Your task to perform on an android device: Open CNN.com Image 0: 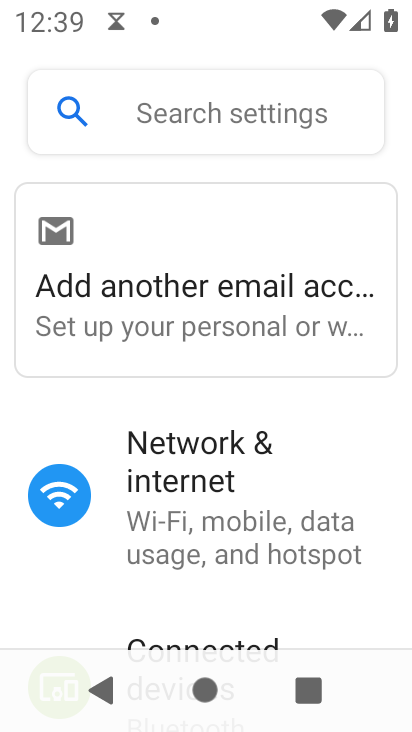
Step 0: press back button
Your task to perform on an android device: Open CNN.com Image 1: 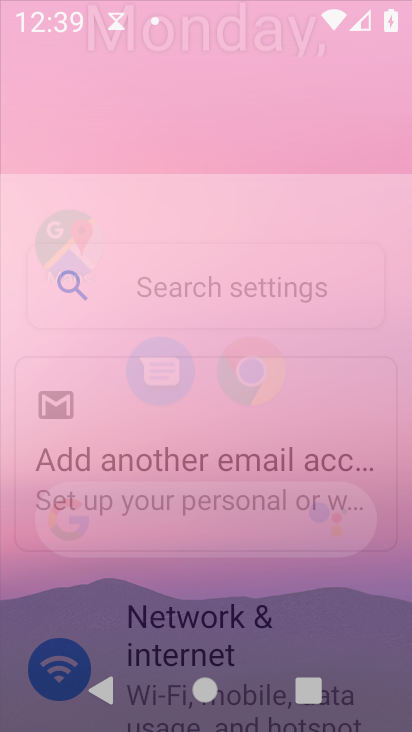
Step 1: press back button
Your task to perform on an android device: Open CNN.com Image 2: 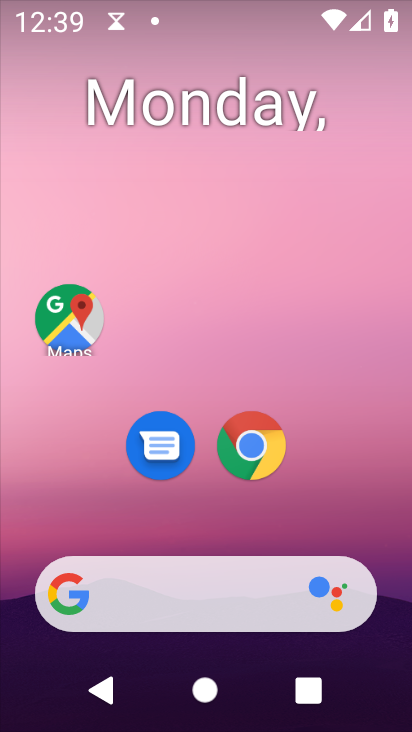
Step 2: drag from (325, 513) to (287, 114)
Your task to perform on an android device: Open CNN.com Image 3: 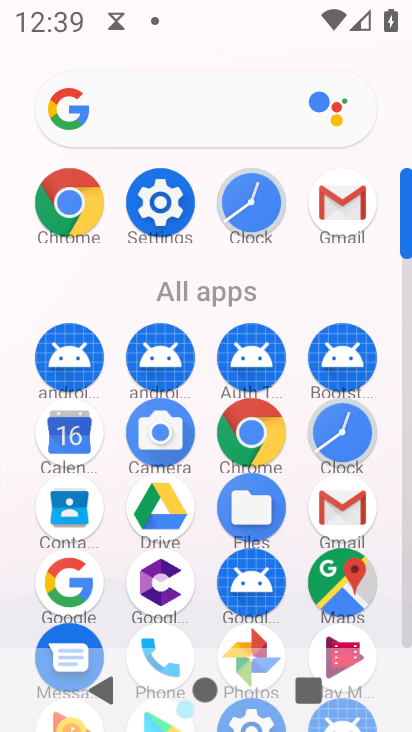
Step 3: click (252, 426)
Your task to perform on an android device: Open CNN.com Image 4: 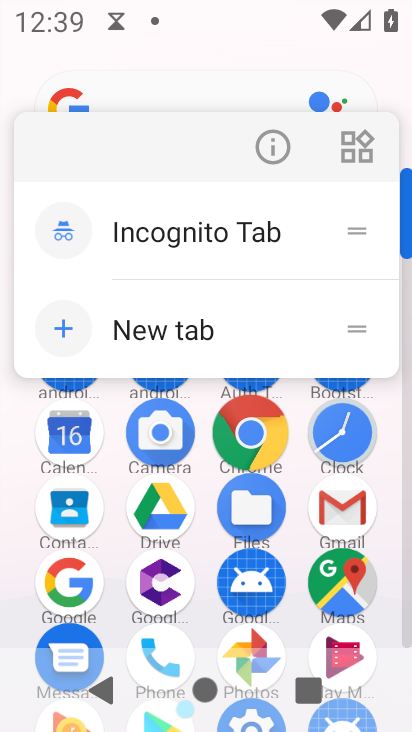
Step 4: click (245, 426)
Your task to perform on an android device: Open CNN.com Image 5: 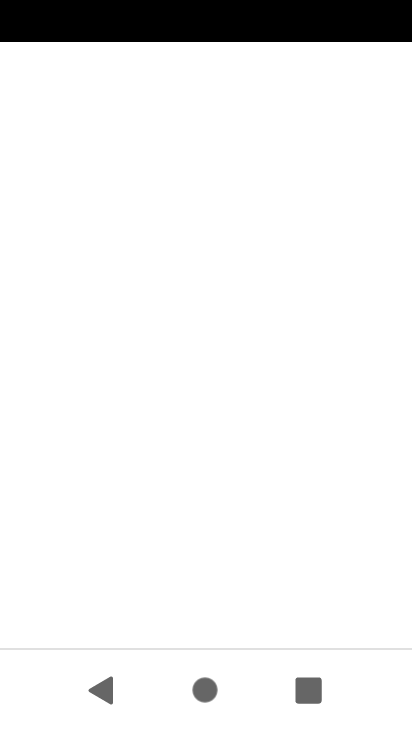
Step 5: click (243, 421)
Your task to perform on an android device: Open CNN.com Image 6: 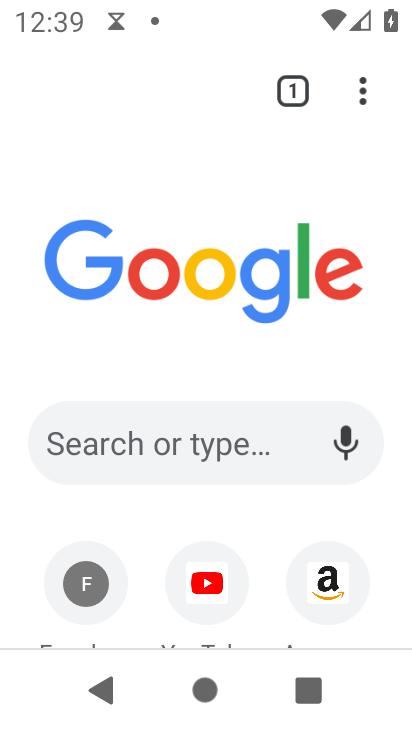
Step 6: click (95, 454)
Your task to perform on an android device: Open CNN.com Image 7: 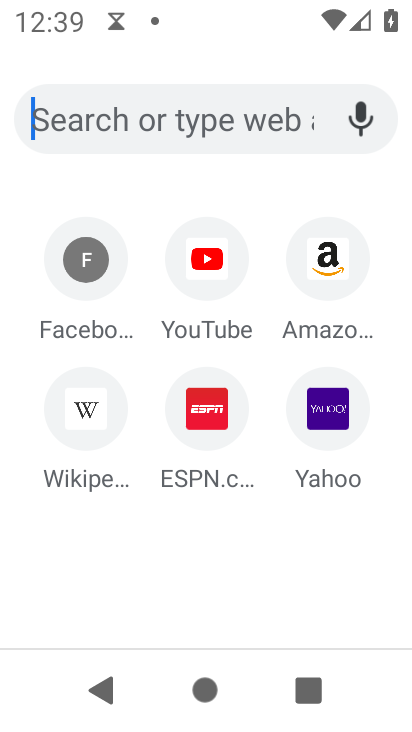
Step 7: click (95, 454)
Your task to perform on an android device: Open CNN.com Image 8: 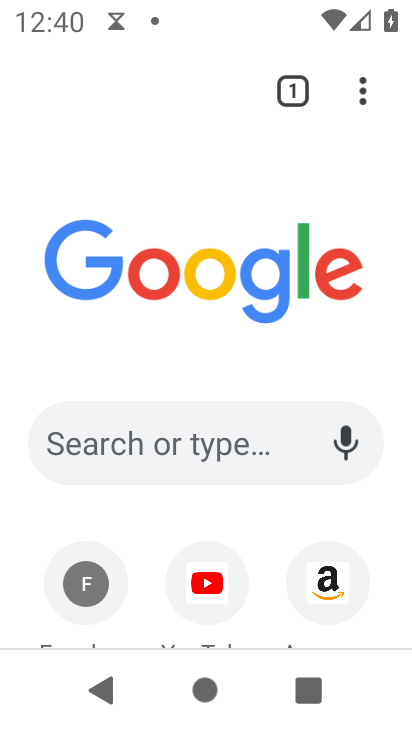
Step 8: click (98, 437)
Your task to perform on an android device: Open CNN.com Image 9: 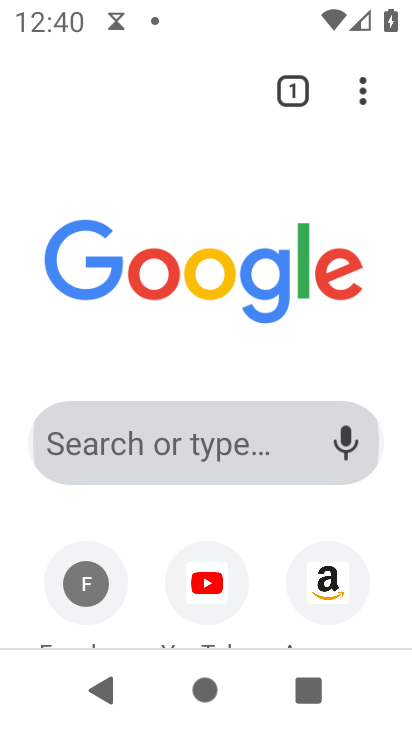
Step 9: click (98, 437)
Your task to perform on an android device: Open CNN.com Image 10: 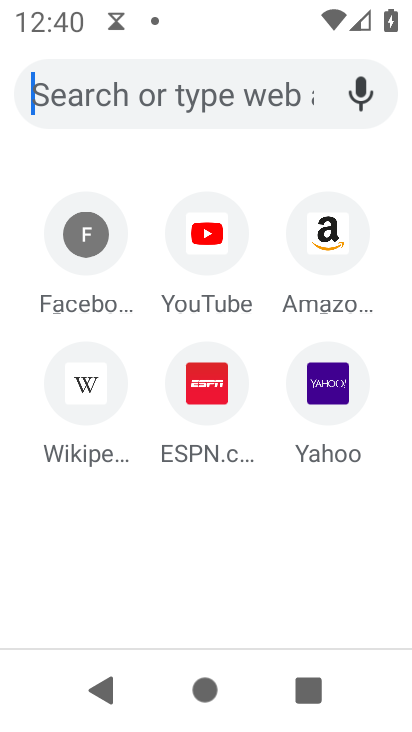
Step 10: click (94, 440)
Your task to perform on an android device: Open CNN.com Image 11: 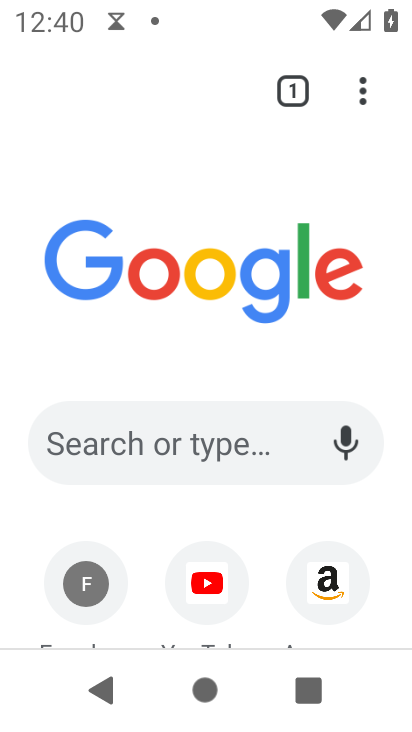
Step 11: type "cnn.com"
Your task to perform on an android device: Open CNN.com Image 12: 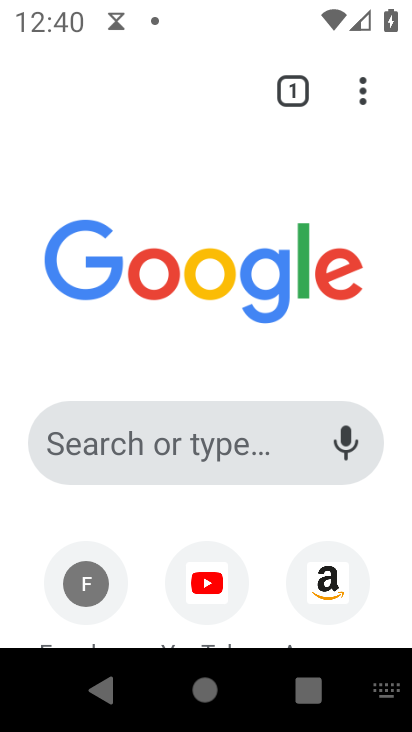
Step 12: click (123, 455)
Your task to perform on an android device: Open CNN.com Image 13: 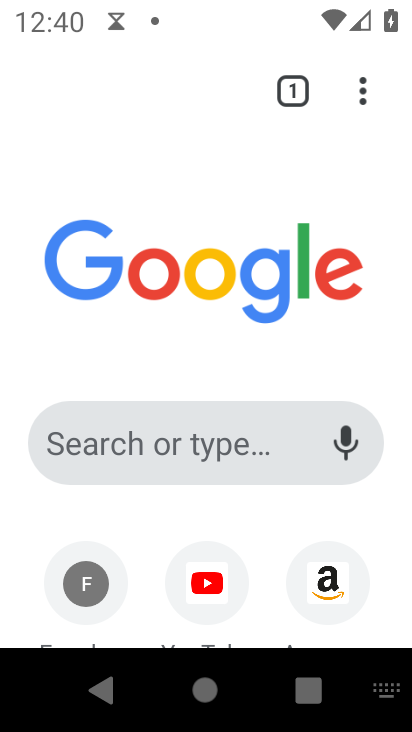
Step 13: click (123, 455)
Your task to perform on an android device: Open CNN.com Image 14: 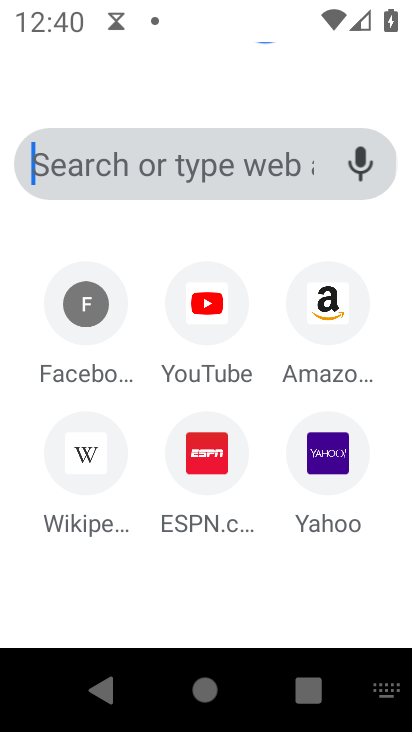
Step 14: click (123, 455)
Your task to perform on an android device: Open CNN.com Image 15: 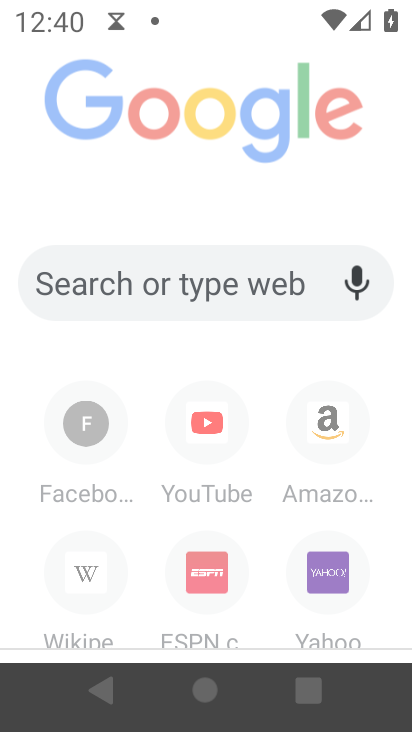
Step 15: click (123, 455)
Your task to perform on an android device: Open CNN.com Image 16: 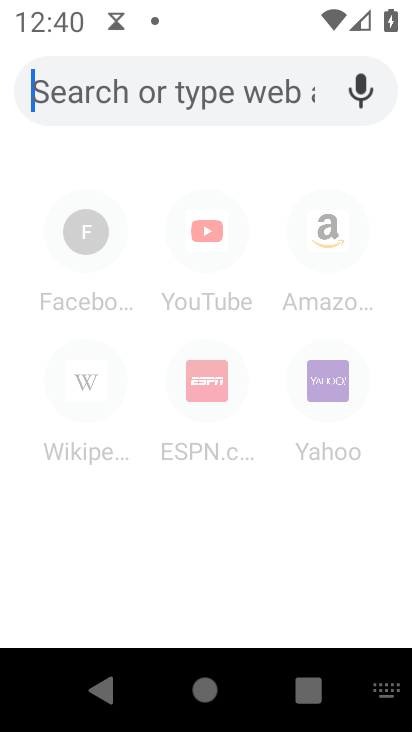
Step 16: type "CNN.com"
Your task to perform on an android device: Open CNN.com Image 17: 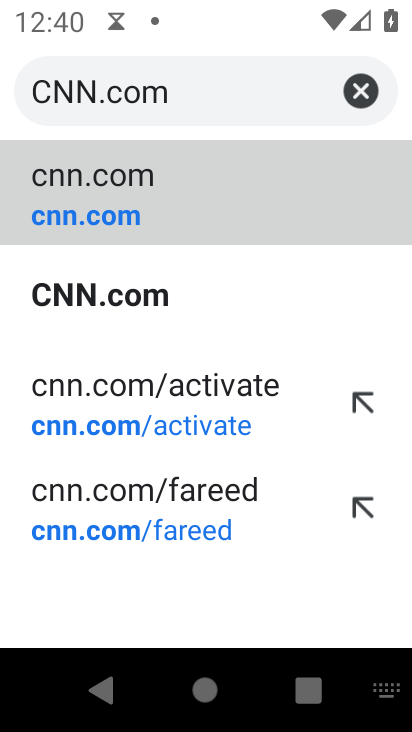
Step 17: click (101, 413)
Your task to perform on an android device: Open CNN.com Image 18: 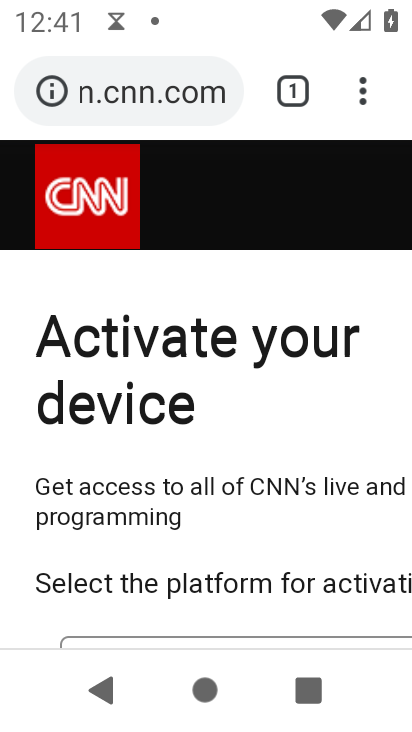
Step 18: task complete